Your task to perform on an android device: open device folders in google photos Image 0: 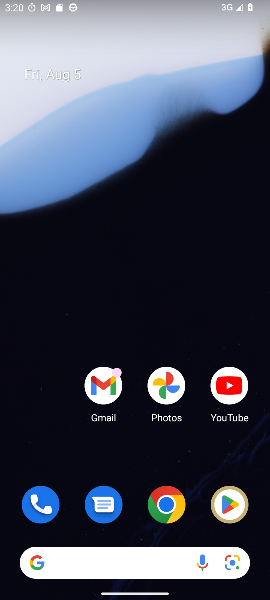
Step 0: click (165, 386)
Your task to perform on an android device: open device folders in google photos Image 1: 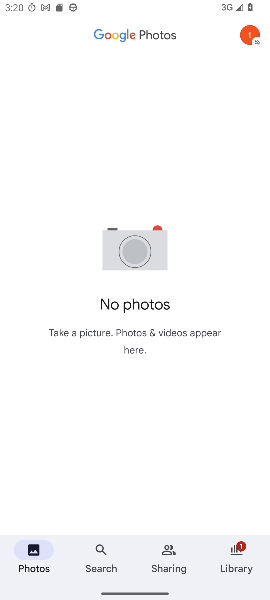
Step 1: click (157, 385)
Your task to perform on an android device: open device folders in google photos Image 2: 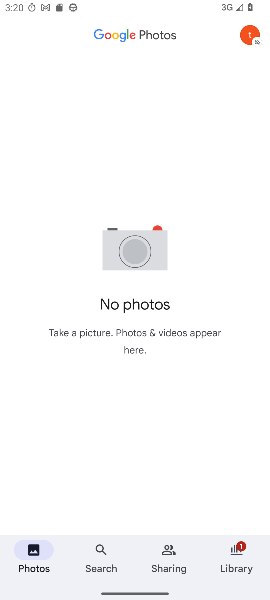
Step 2: click (110, 71)
Your task to perform on an android device: open device folders in google photos Image 3: 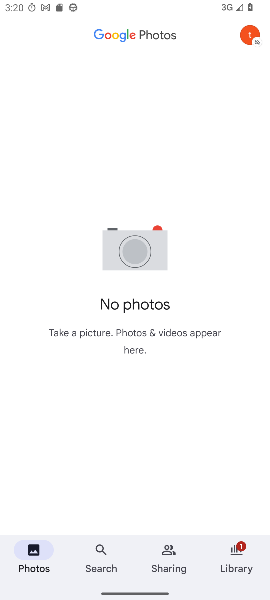
Step 3: click (246, 22)
Your task to perform on an android device: open device folders in google photos Image 4: 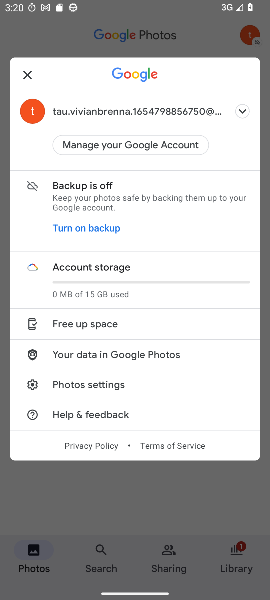
Step 4: click (65, 385)
Your task to perform on an android device: open device folders in google photos Image 5: 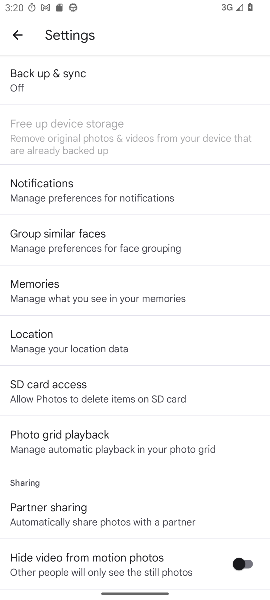
Step 5: task complete